Your task to perform on an android device: Open Maps and search for coffee Image 0: 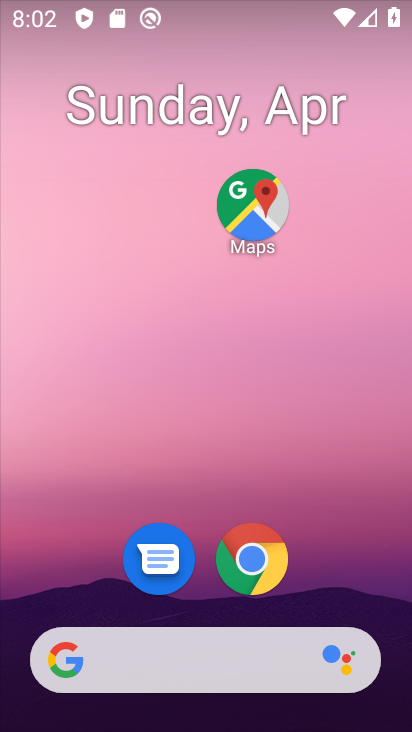
Step 0: click (258, 259)
Your task to perform on an android device: Open Maps and search for coffee Image 1: 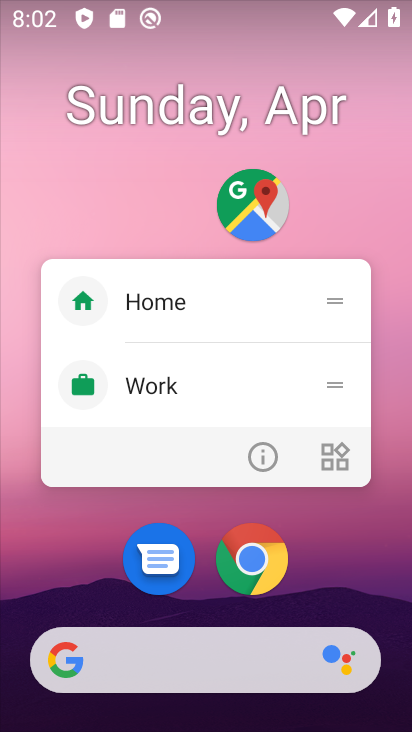
Step 1: click (263, 469)
Your task to perform on an android device: Open Maps and search for coffee Image 2: 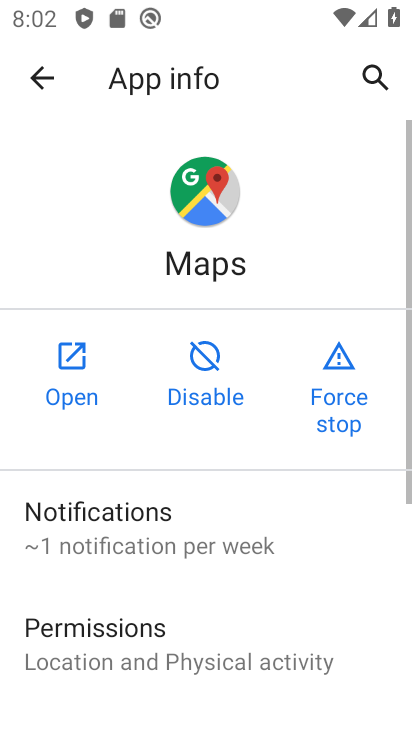
Step 2: click (75, 362)
Your task to perform on an android device: Open Maps and search for coffee Image 3: 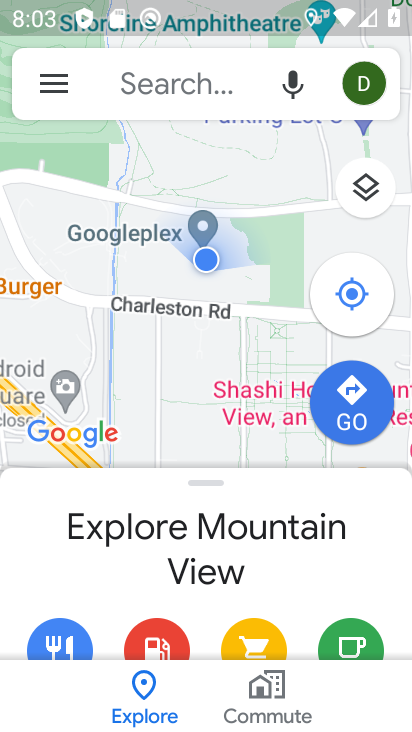
Step 3: click (226, 82)
Your task to perform on an android device: Open Maps and search for coffee Image 4: 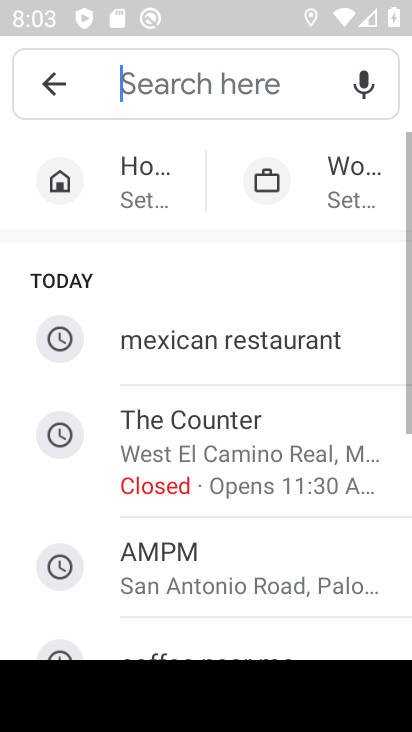
Step 4: drag from (137, 601) to (228, 320)
Your task to perform on an android device: Open Maps and search for coffee Image 5: 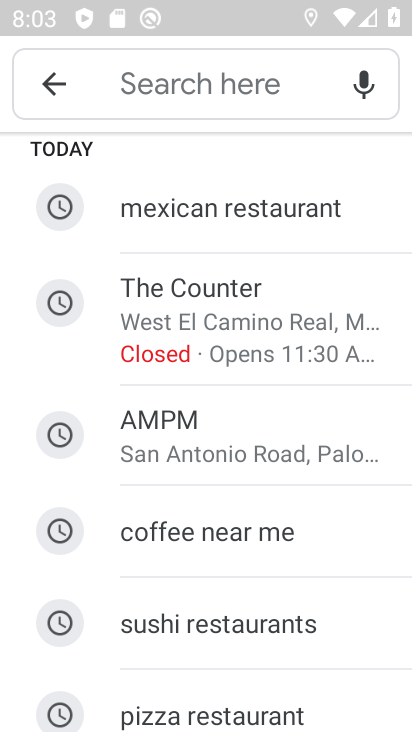
Step 5: drag from (193, 673) to (297, 286)
Your task to perform on an android device: Open Maps and search for coffee Image 6: 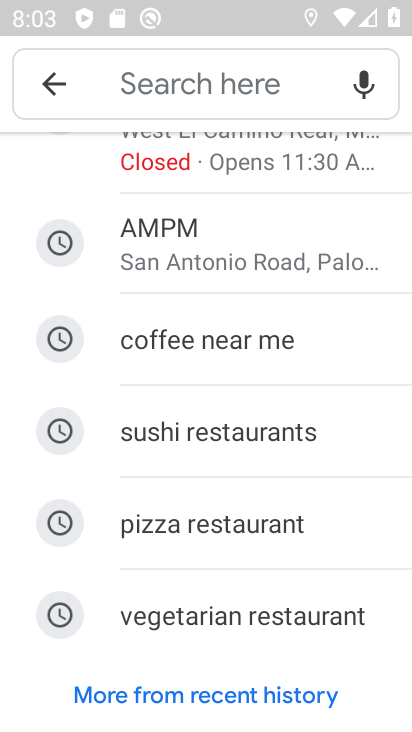
Step 6: click (181, 340)
Your task to perform on an android device: Open Maps and search for coffee Image 7: 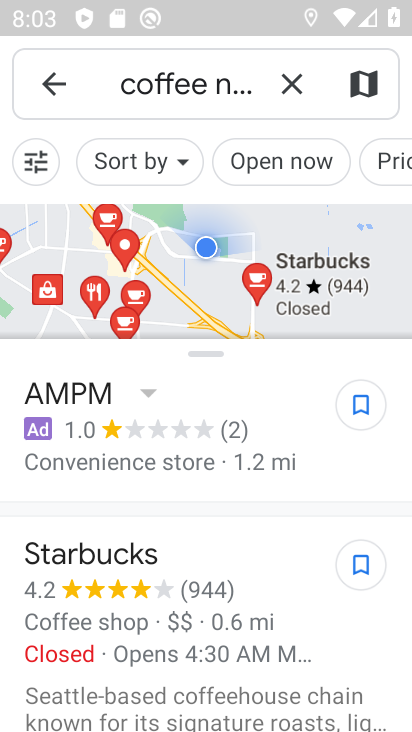
Step 7: task complete